Your task to perform on an android device: What's the weather going to be tomorrow? Image 0: 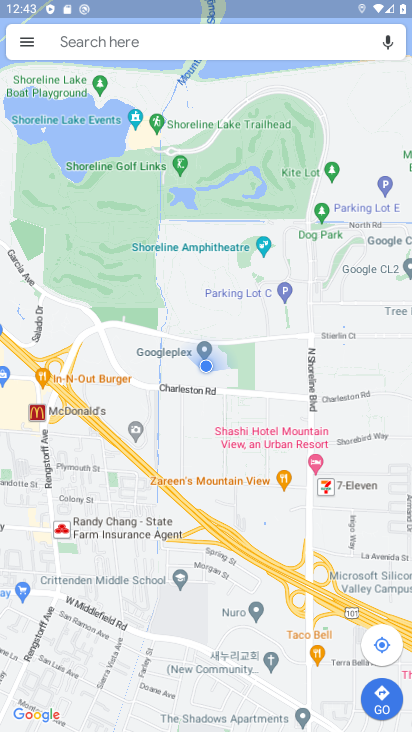
Step 0: press back button
Your task to perform on an android device: What's the weather going to be tomorrow? Image 1: 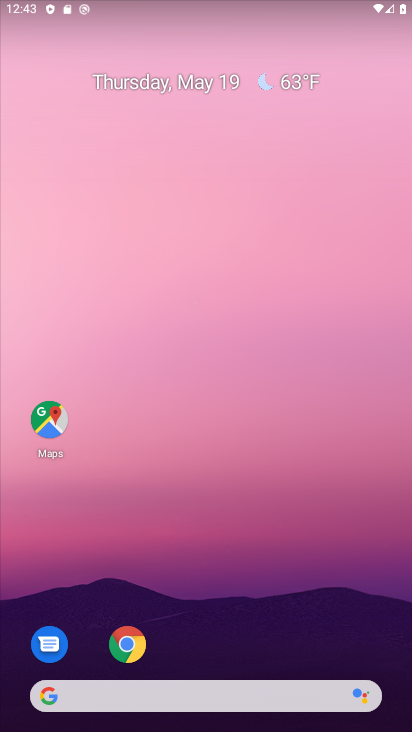
Step 1: click (293, 84)
Your task to perform on an android device: What's the weather going to be tomorrow? Image 2: 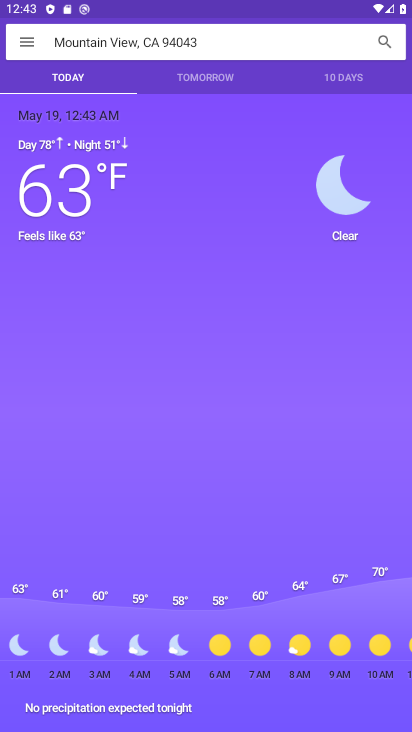
Step 2: click (183, 76)
Your task to perform on an android device: What's the weather going to be tomorrow? Image 3: 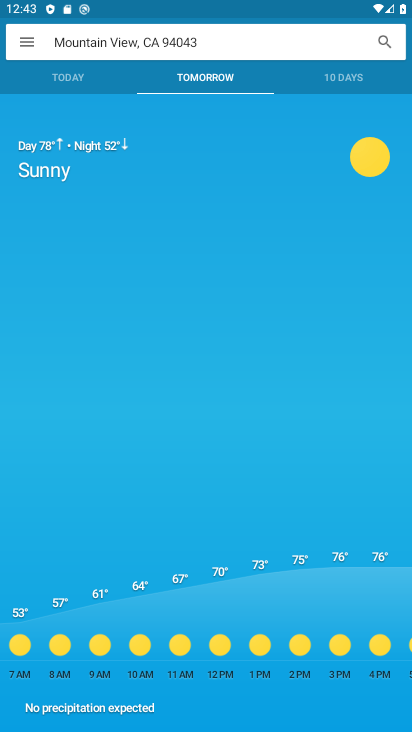
Step 3: task complete